Your task to perform on an android device: turn off javascript in the chrome app Image 0: 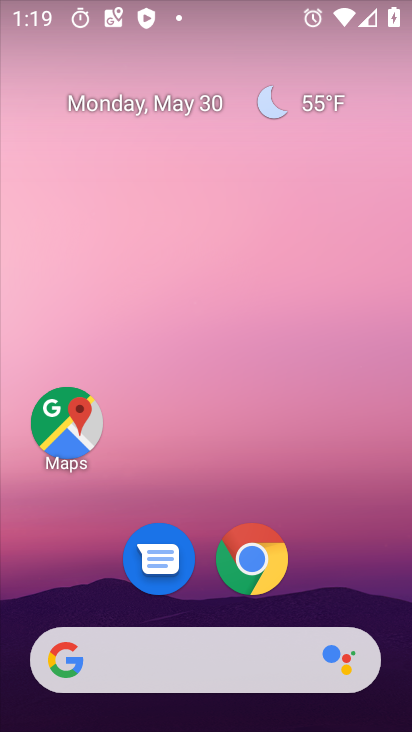
Step 0: click (260, 555)
Your task to perform on an android device: turn off javascript in the chrome app Image 1: 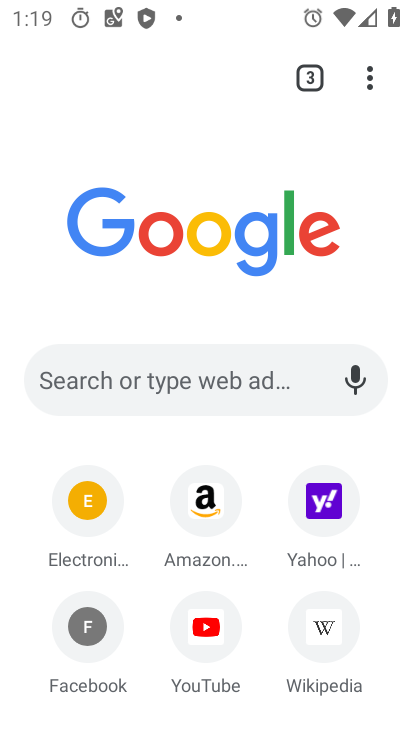
Step 1: click (375, 71)
Your task to perform on an android device: turn off javascript in the chrome app Image 2: 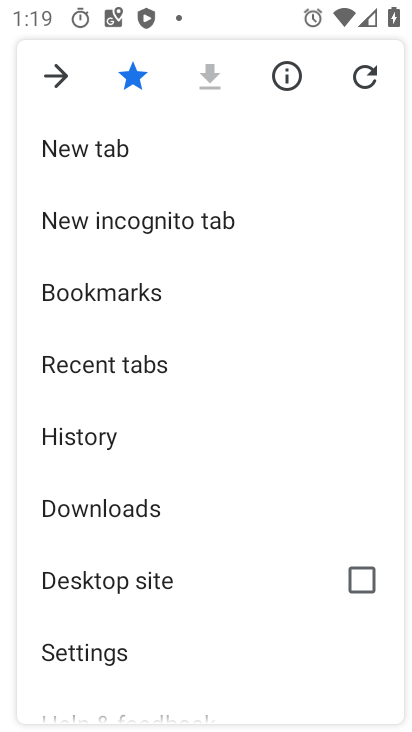
Step 2: drag from (116, 632) to (181, 170)
Your task to perform on an android device: turn off javascript in the chrome app Image 3: 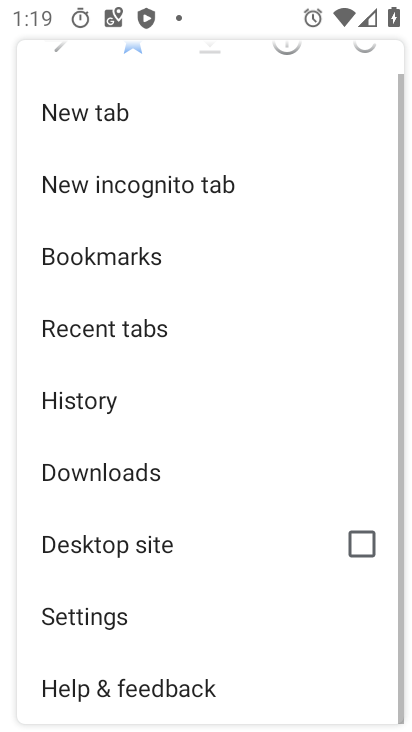
Step 3: click (75, 612)
Your task to perform on an android device: turn off javascript in the chrome app Image 4: 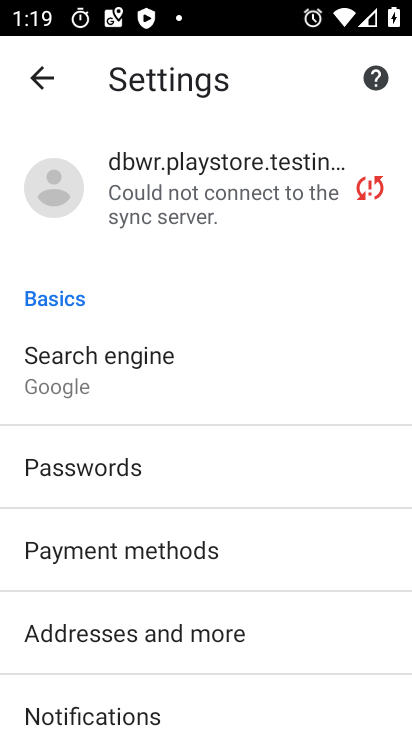
Step 4: drag from (123, 634) to (239, 161)
Your task to perform on an android device: turn off javascript in the chrome app Image 5: 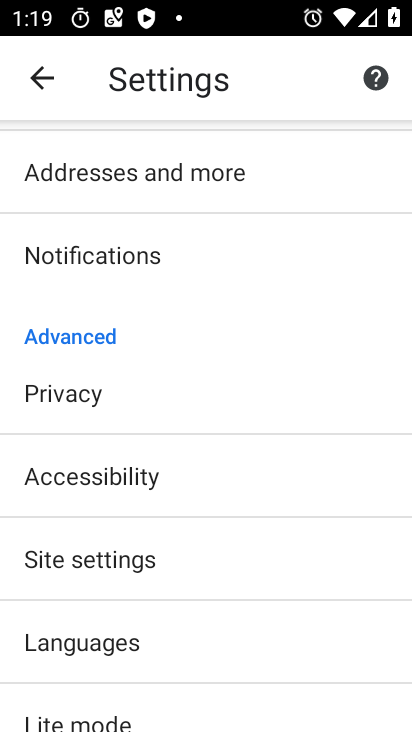
Step 5: click (101, 557)
Your task to perform on an android device: turn off javascript in the chrome app Image 6: 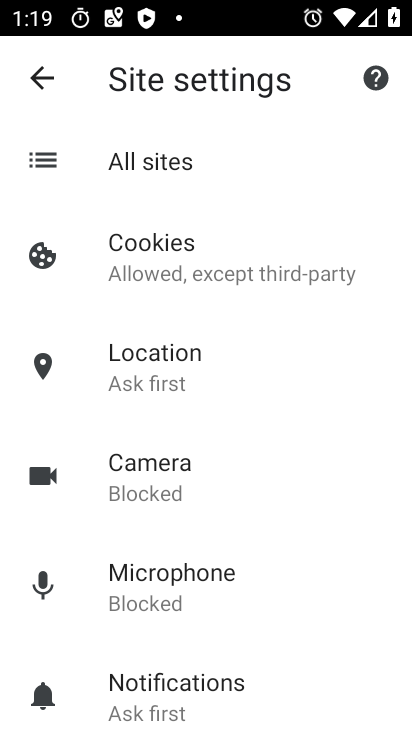
Step 6: drag from (168, 638) to (283, 65)
Your task to perform on an android device: turn off javascript in the chrome app Image 7: 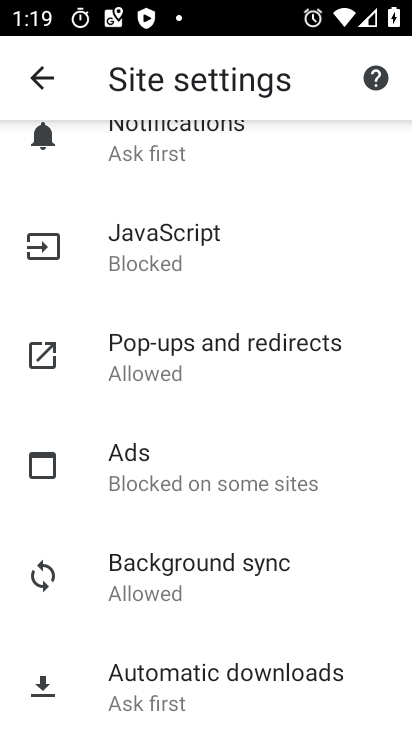
Step 7: click (165, 252)
Your task to perform on an android device: turn off javascript in the chrome app Image 8: 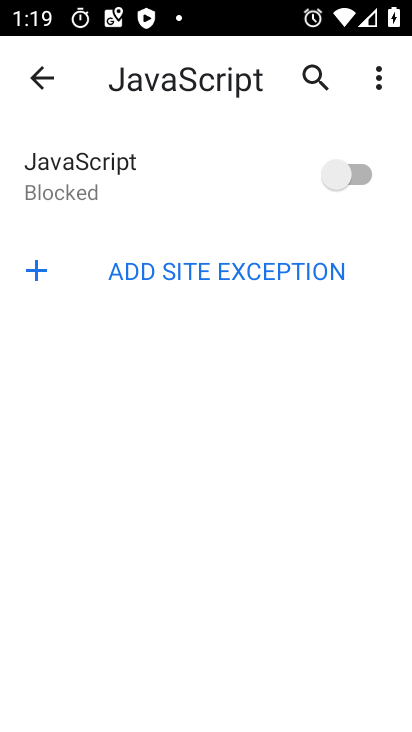
Step 8: task complete